Your task to perform on an android device: toggle data saver in the chrome app Image 0: 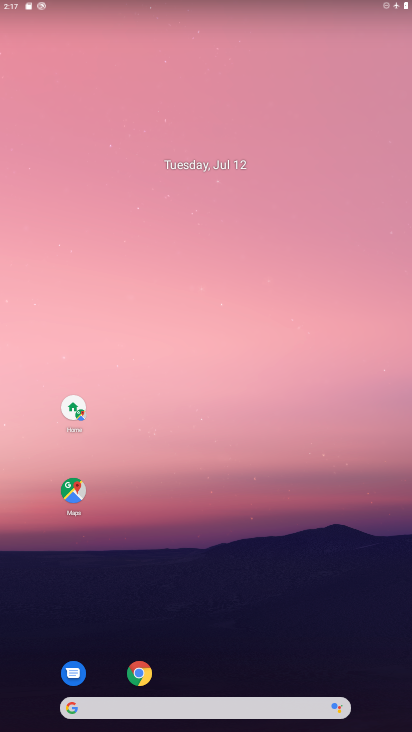
Step 0: drag from (196, 610) to (210, 189)
Your task to perform on an android device: toggle data saver in the chrome app Image 1: 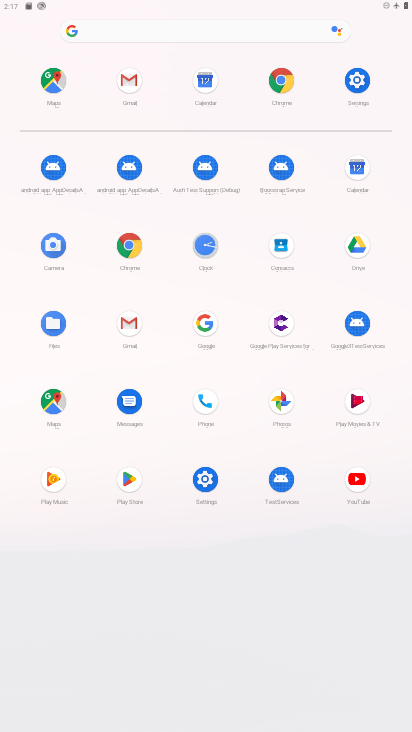
Step 1: click (283, 73)
Your task to perform on an android device: toggle data saver in the chrome app Image 2: 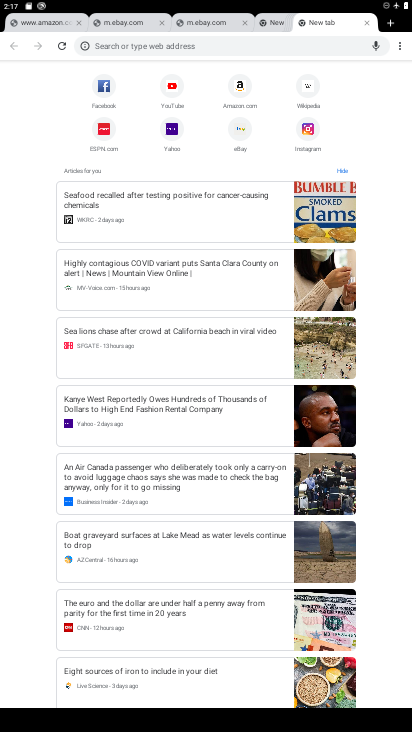
Step 2: click (370, 20)
Your task to perform on an android device: toggle data saver in the chrome app Image 3: 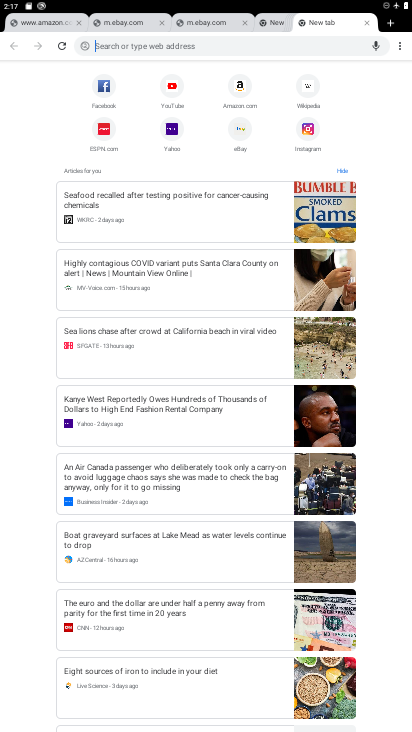
Step 3: click (370, 20)
Your task to perform on an android device: toggle data saver in the chrome app Image 4: 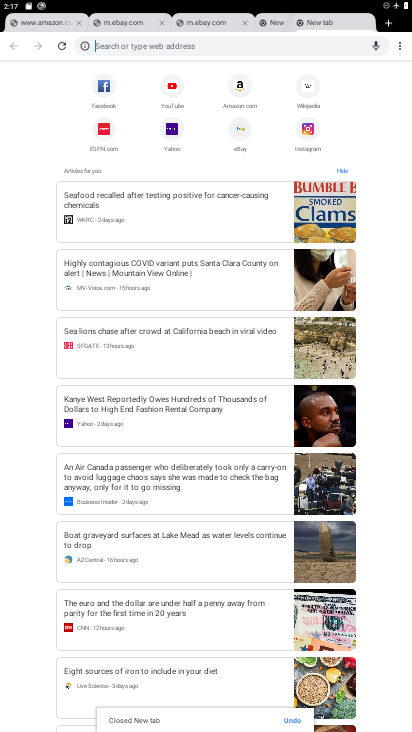
Step 4: click (370, 20)
Your task to perform on an android device: toggle data saver in the chrome app Image 5: 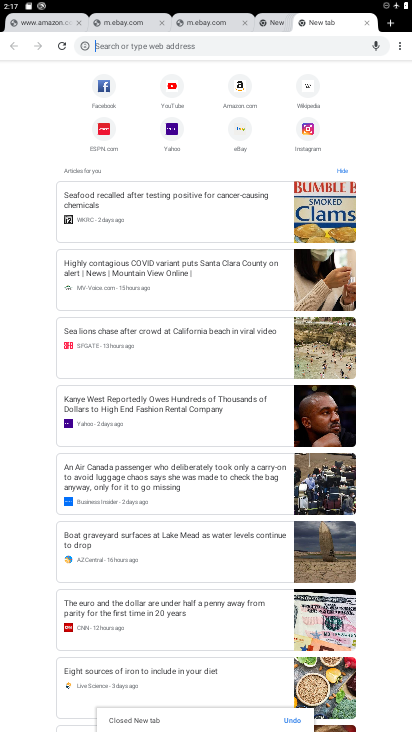
Step 5: click (370, 20)
Your task to perform on an android device: toggle data saver in the chrome app Image 6: 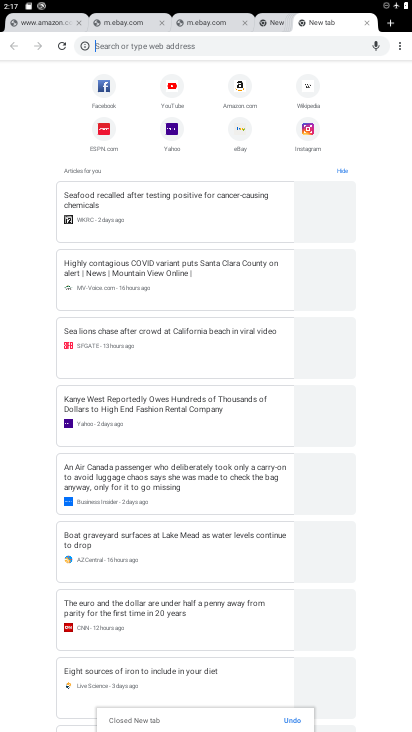
Step 6: click (370, 20)
Your task to perform on an android device: toggle data saver in the chrome app Image 7: 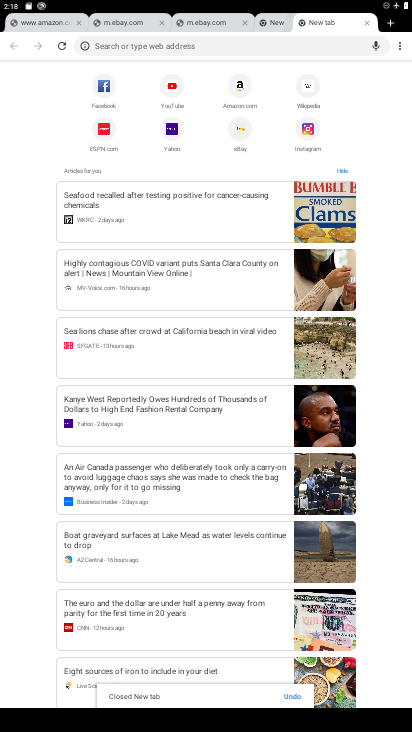
Step 7: click (370, 20)
Your task to perform on an android device: toggle data saver in the chrome app Image 8: 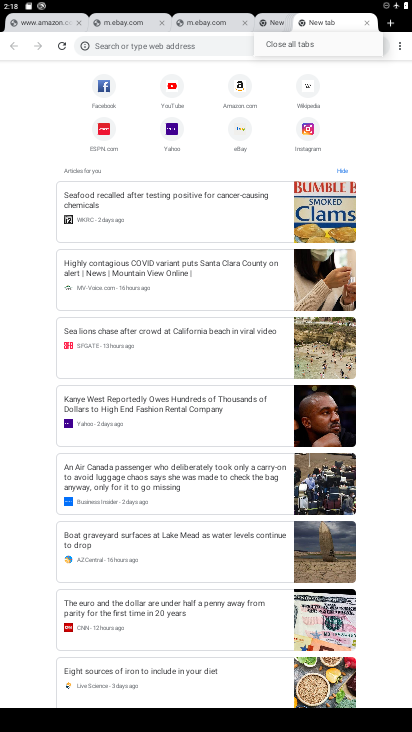
Step 8: click (369, 20)
Your task to perform on an android device: toggle data saver in the chrome app Image 9: 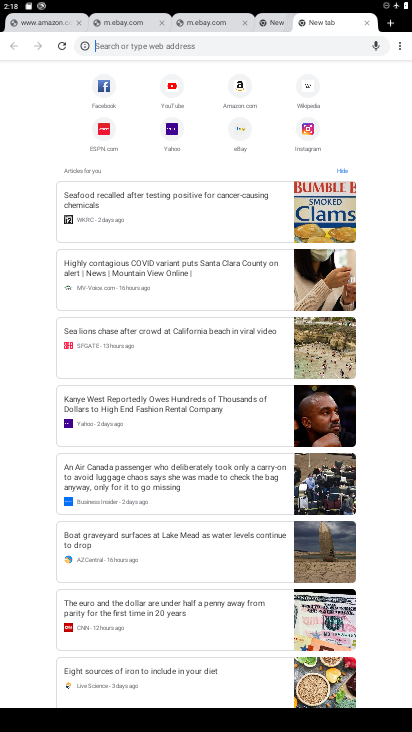
Step 9: click (406, 41)
Your task to perform on an android device: toggle data saver in the chrome app Image 10: 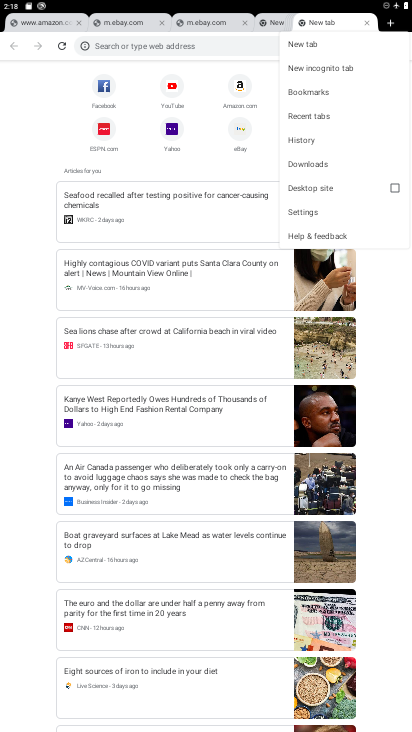
Step 10: click (308, 207)
Your task to perform on an android device: toggle data saver in the chrome app Image 11: 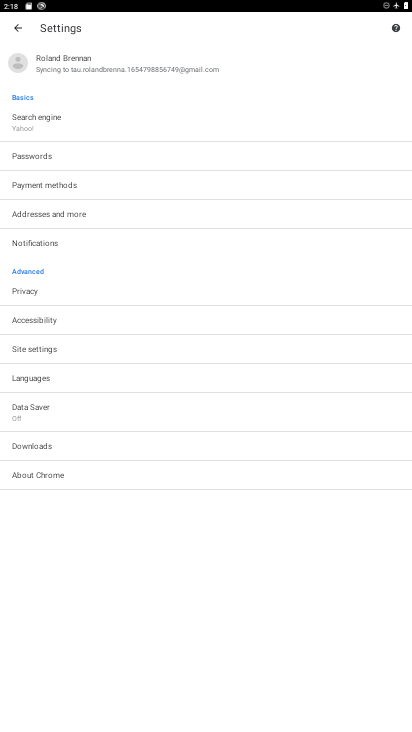
Step 11: click (62, 406)
Your task to perform on an android device: toggle data saver in the chrome app Image 12: 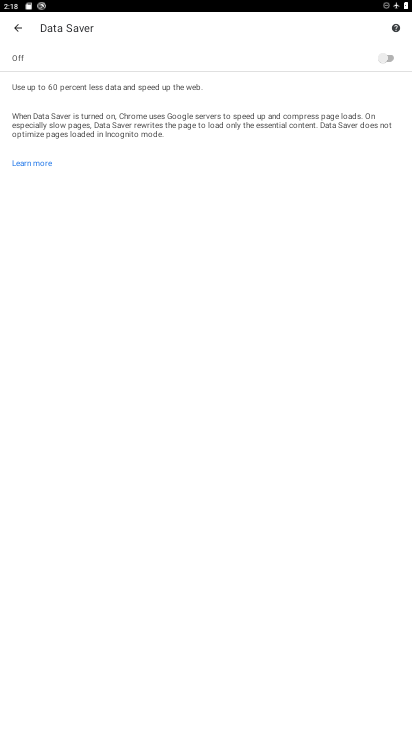
Step 12: click (389, 57)
Your task to perform on an android device: toggle data saver in the chrome app Image 13: 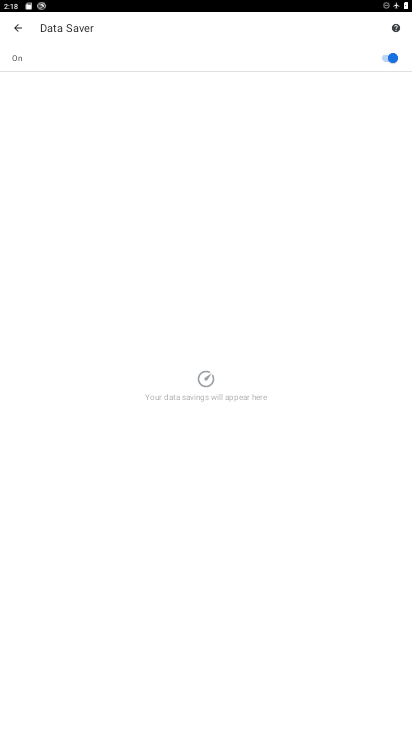
Step 13: task complete